Your task to perform on an android device: empty trash in google photos Image 0: 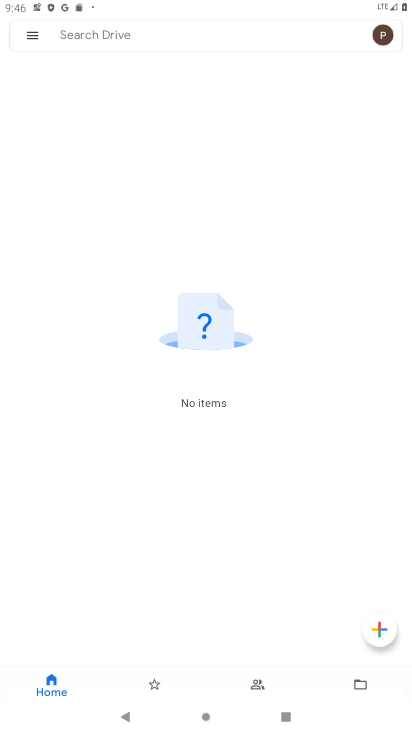
Step 0: press home button
Your task to perform on an android device: empty trash in google photos Image 1: 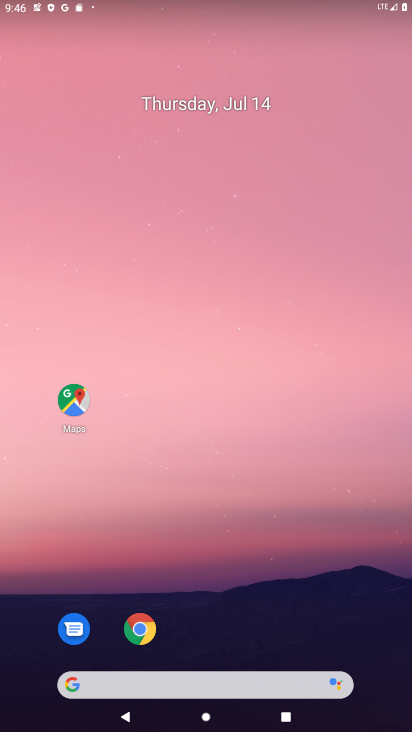
Step 1: drag from (17, 720) to (401, 89)
Your task to perform on an android device: empty trash in google photos Image 2: 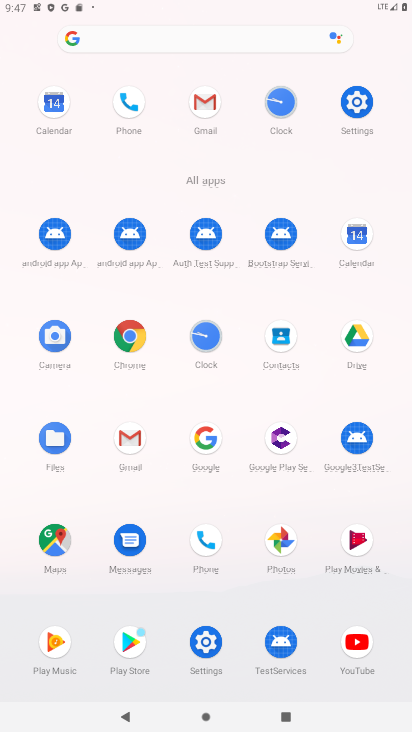
Step 2: click (285, 540)
Your task to perform on an android device: empty trash in google photos Image 3: 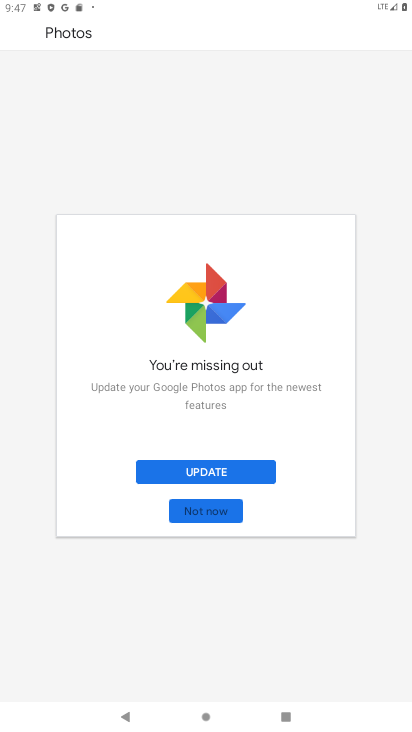
Step 3: click (211, 524)
Your task to perform on an android device: empty trash in google photos Image 4: 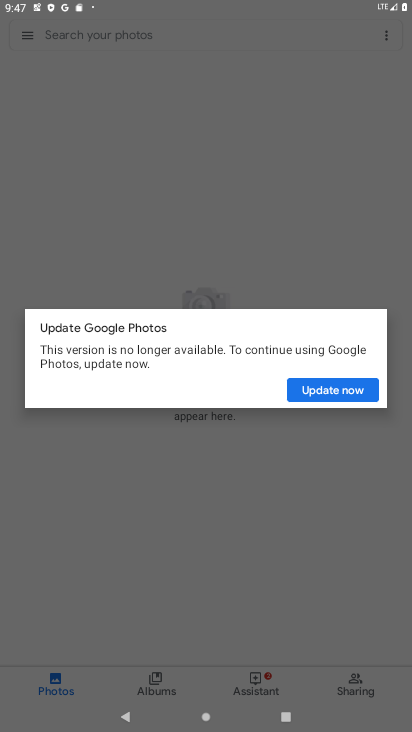
Step 4: click (313, 387)
Your task to perform on an android device: empty trash in google photos Image 5: 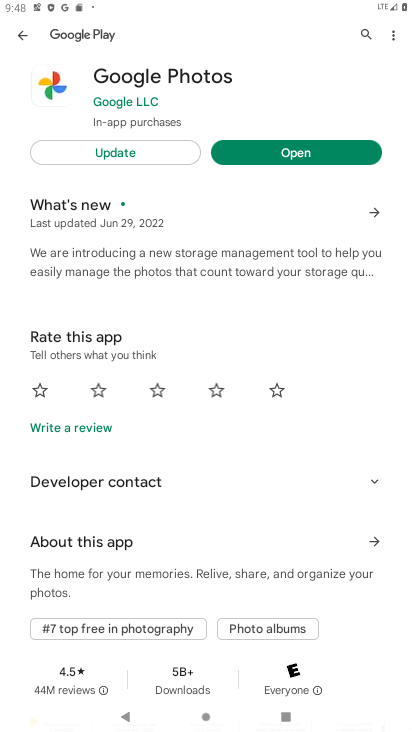
Step 5: click (349, 154)
Your task to perform on an android device: empty trash in google photos Image 6: 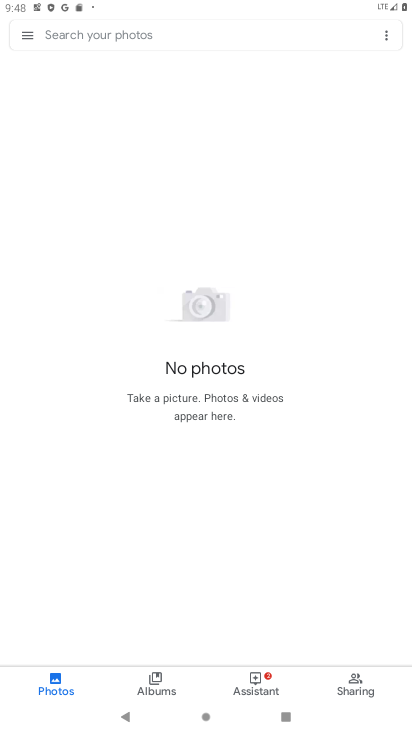
Step 6: click (23, 33)
Your task to perform on an android device: empty trash in google photos Image 7: 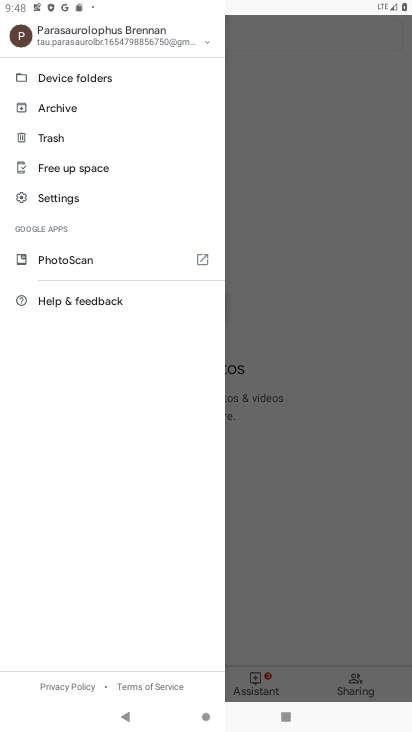
Step 7: click (73, 142)
Your task to perform on an android device: empty trash in google photos Image 8: 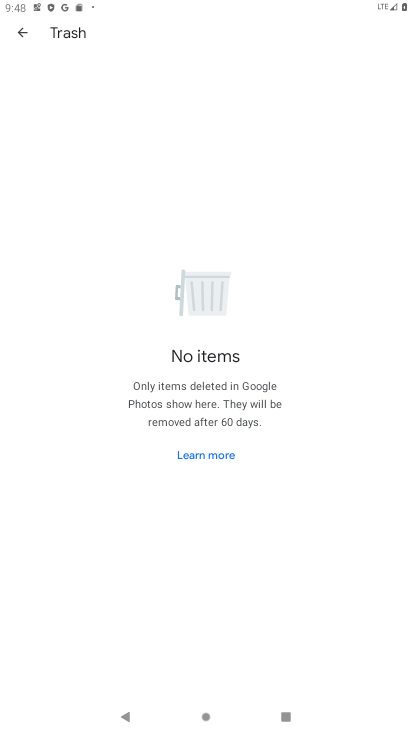
Step 8: task complete